Your task to perform on an android device: Do I have any events tomorrow? Image 0: 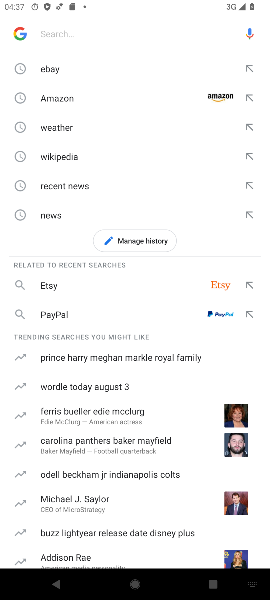
Step 0: press home button
Your task to perform on an android device: Do I have any events tomorrow? Image 1: 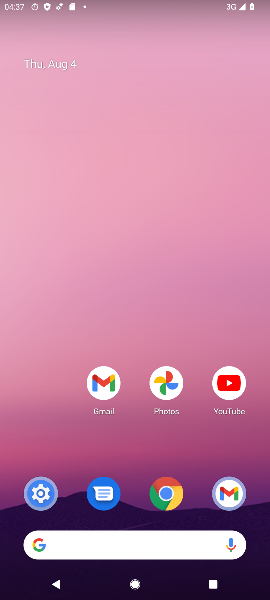
Step 1: click (209, 35)
Your task to perform on an android device: Do I have any events tomorrow? Image 2: 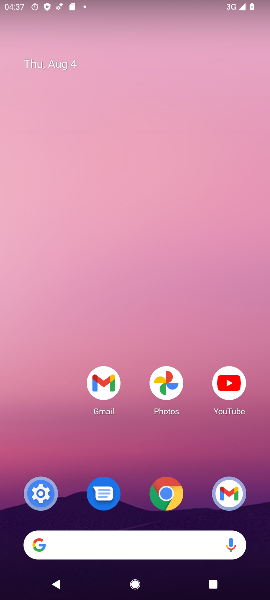
Step 2: drag from (63, 555) to (199, 53)
Your task to perform on an android device: Do I have any events tomorrow? Image 3: 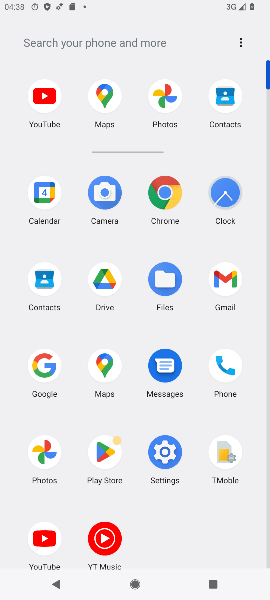
Step 3: click (48, 208)
Your task to perform on an android device: Do I have any events tomorrow? Image 4: 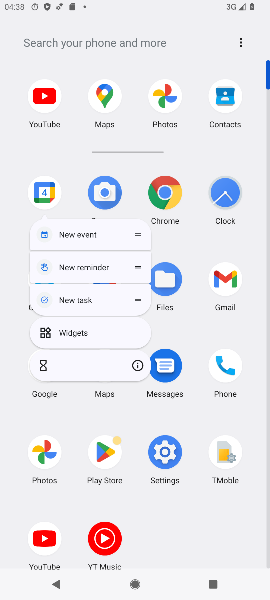
Step 4: click (204, 531)
Your task to perform on an android device: Do I have any events tomorrow? Image 5: 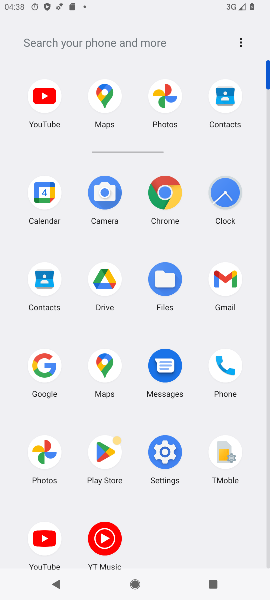
Step 5: click (43, 202)
Your task to perform on an android device: Do I have any events tomorrow? Image 6: 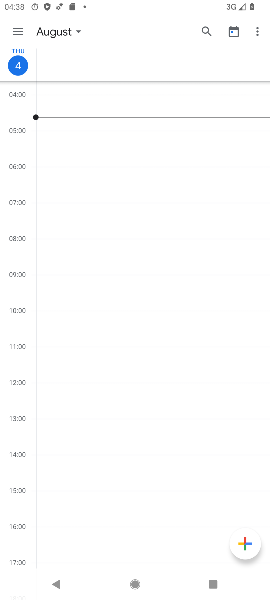
Step 6: click (74, 25)
Your task to perform on an android device: Do I have any events tomorrow? Image 7: 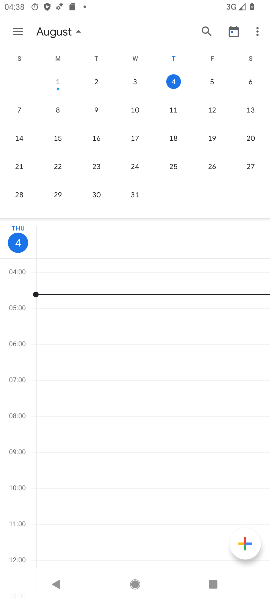
Step 7: task complete